Your task to perform on an android device: clear all cookies in the chrome app Image 0: 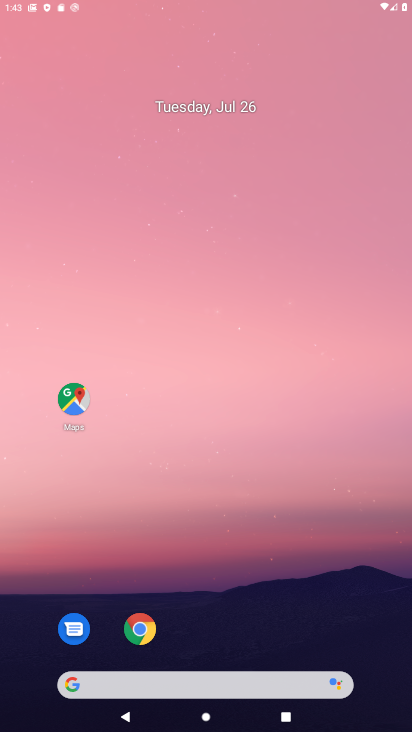
Step 0: click (257, 150)
Your task to perform on an android device: clear all cookies in the chrome app Image 1: 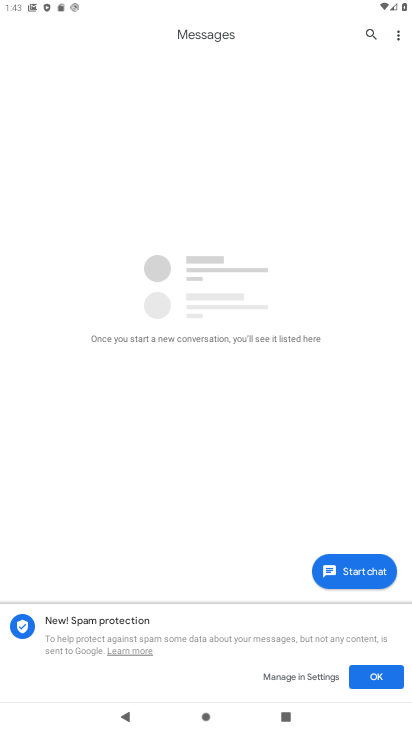
Step 1: press home button
Your task to perform on an android device: clear all cookies in the chrome app Image 2: 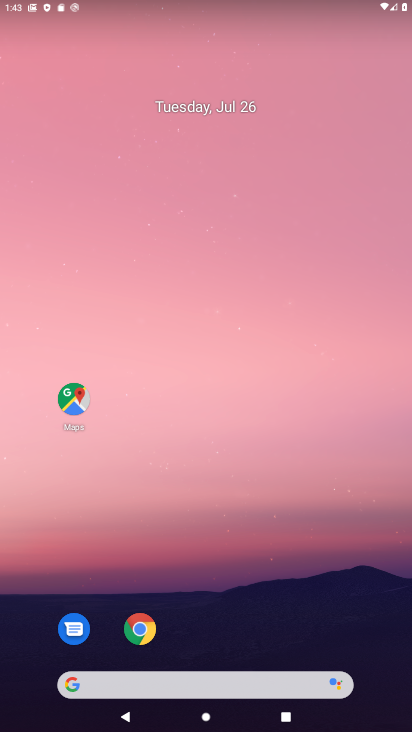
Step 2: click (136, 630)
Your task to perform on an android device: clear all cookies in the chrome app Image 3: 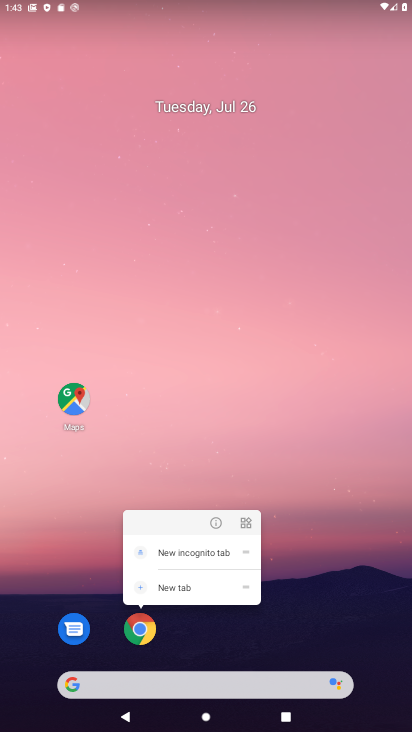
Step 3: click (136, 630)
Your task to perform on an android device: clear all cookies in the chrome app Image 4: 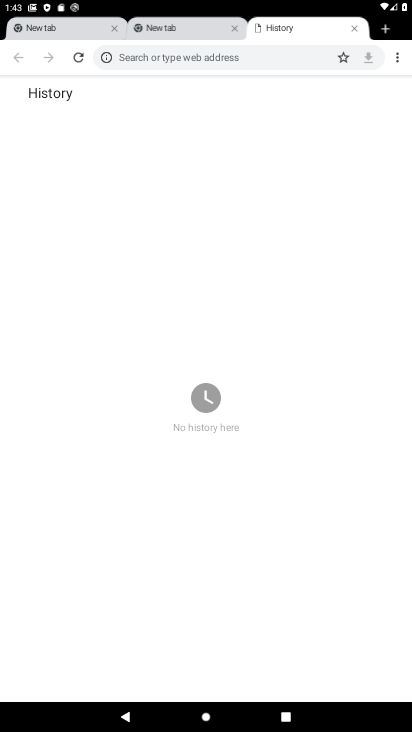
Step 4: click (394, 58)
Your task to perform on an android device: clear all cookies in the chrome app Image 5: 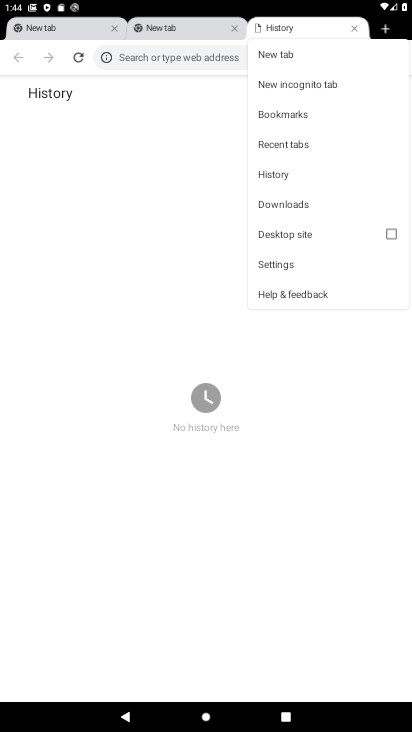
Step 5: click (292, 177)
Your task to perform on an android device: clear all cookies in the chrome app Image 6: 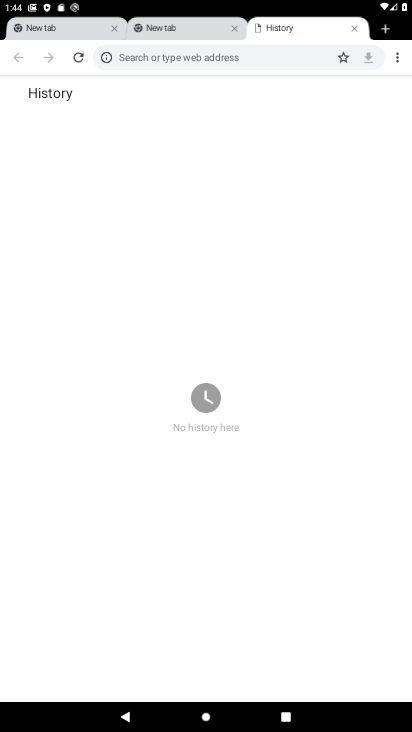
Step 6: task complete